Your task to perform on an android device: change text size in settings app Image 0: 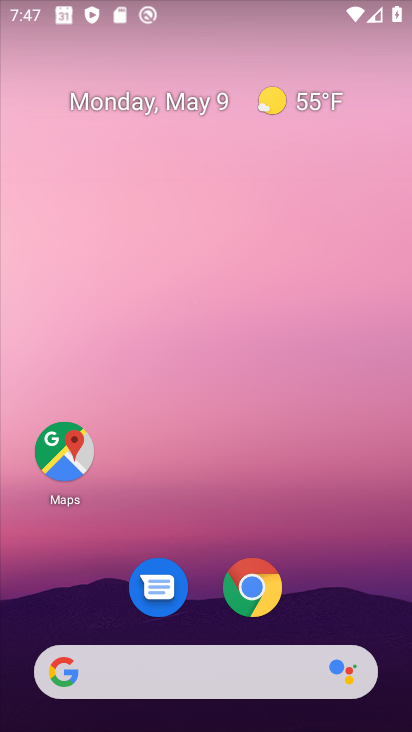
Step 0: drag from (206, 640) to (140, 1)
Your task to perform on an android device: change text size in settings app Image 1: 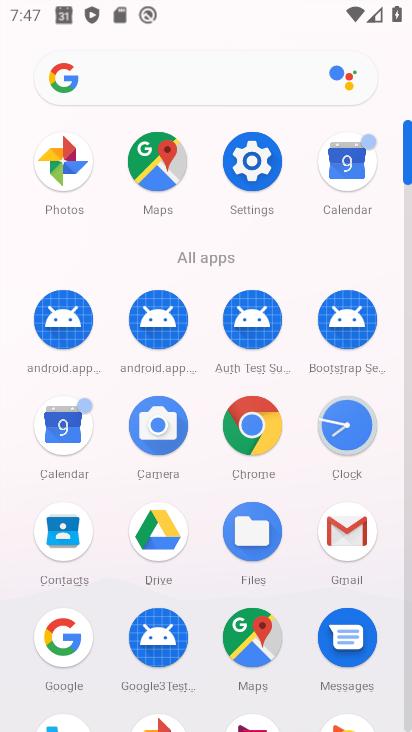
Step 1: click (241, 160)
Your task to perform on an android device: change text size in settings app Image 2: 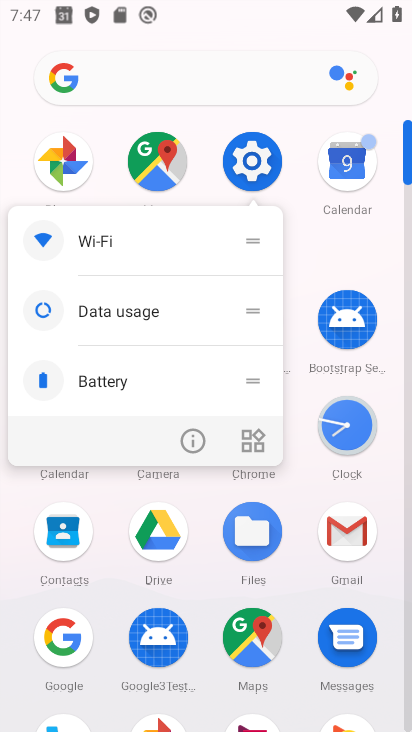
Step 2: click (253, 163)
Your task to perform on an android device: change text size in settings app Image 3: 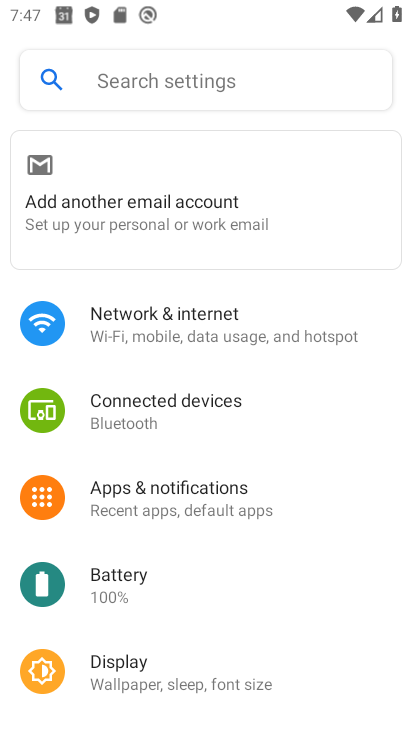
Step 3: drag from (125, 527) to (102, 168)
Your task to perform on an android device: change text size in settings app Image 4: 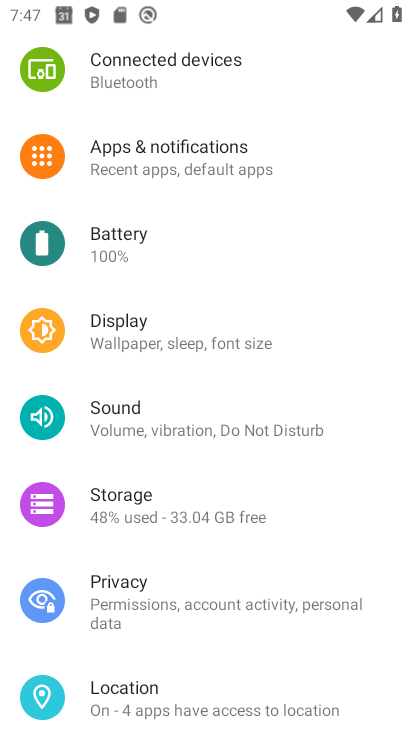
Step 4: click (125, 310)
Your task to perform on an android device: change text size in settings app Image 5: 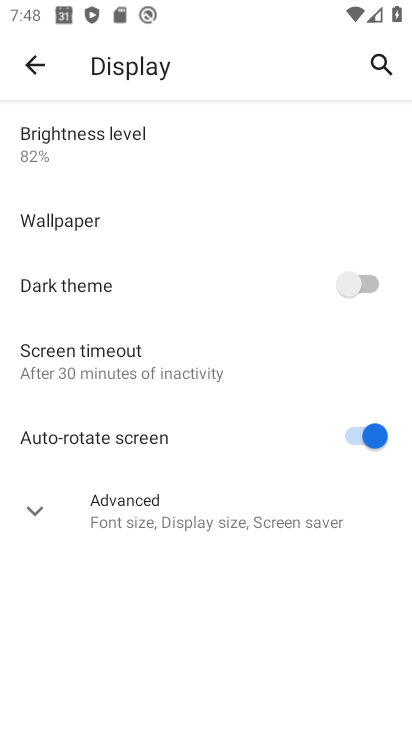
Step 5: click (112, 510)
Your task to perform on an android device: change text size in settings app Image 6: 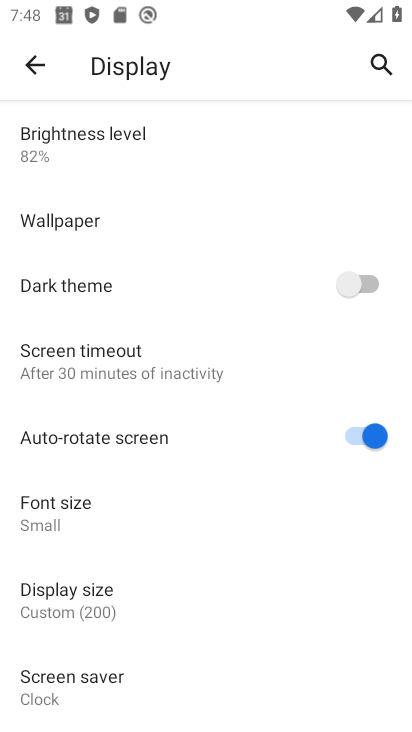
Step 6: click (84, 492)
Your task to perform on an android device: change text size in settings app Image 7: 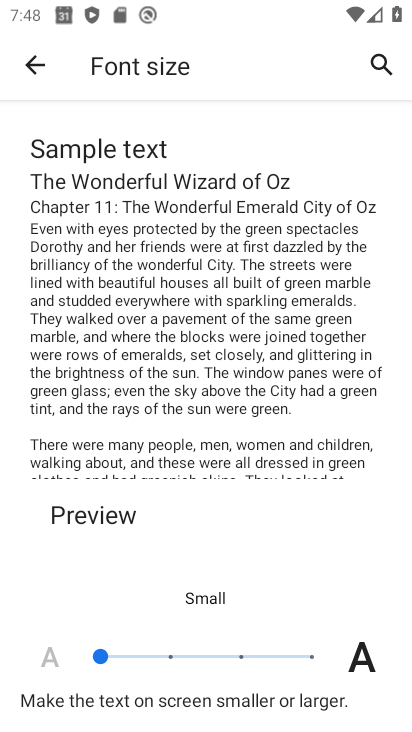
Step 7: click (151, 654)
Your task to perform on an android device: change text size in settings app Image 8: 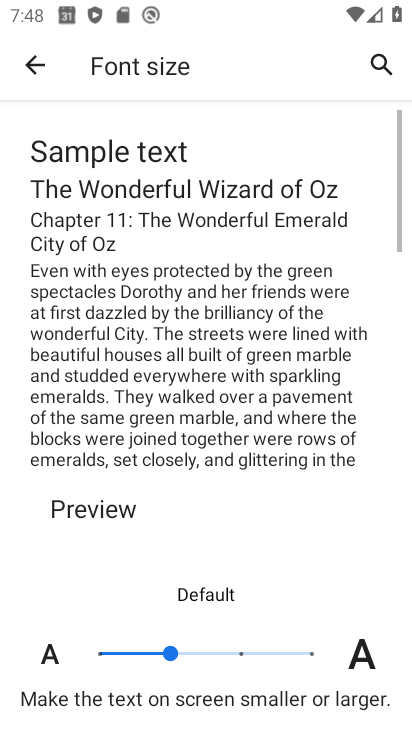
Step 8: task complete